Your task to perform on an android device: Go to Android settings Image 0: 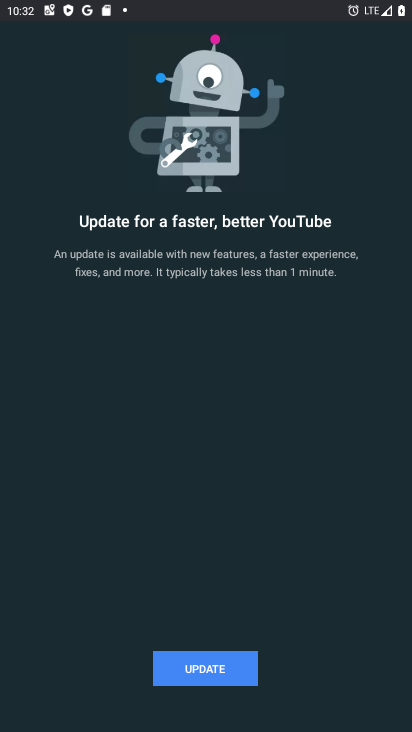
Step 0: press home button
Your task to perform on an android device: Go to Android settings Image 1: 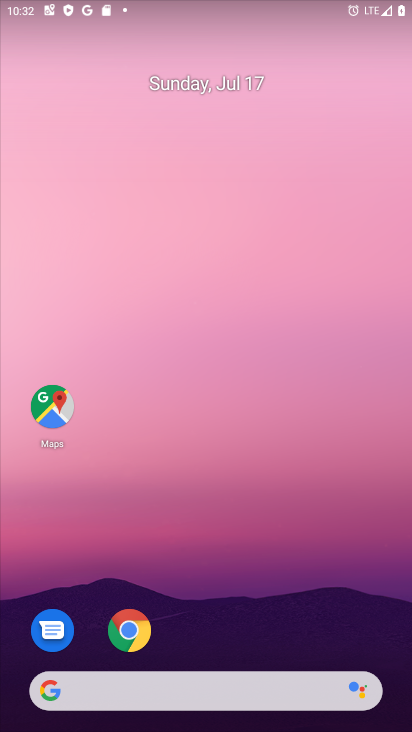
Step 1: drag from (202, 650) to (231, 65)
Your task to perform on an android device: Go to Android settings Image 2: 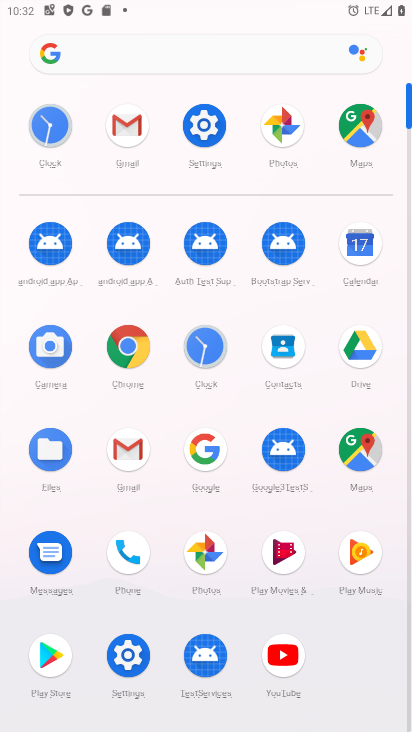
Step 2: click (204, 118)
Your task to perform on an android device: Go to Android settings Image 3: 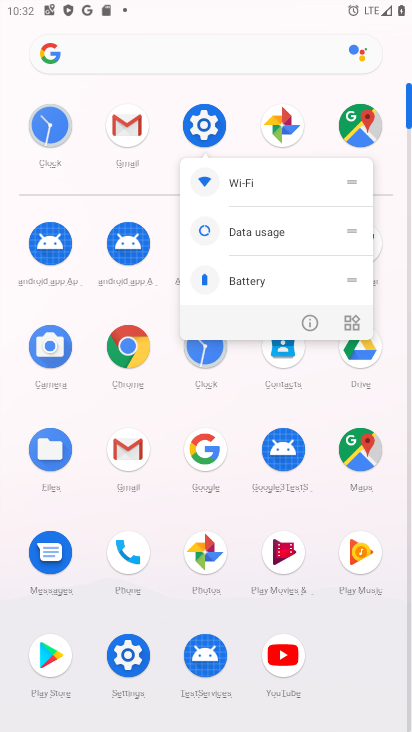
Step 3: click (201, 118)
Your task to perform on an android device: Go to Android settings Image 4: 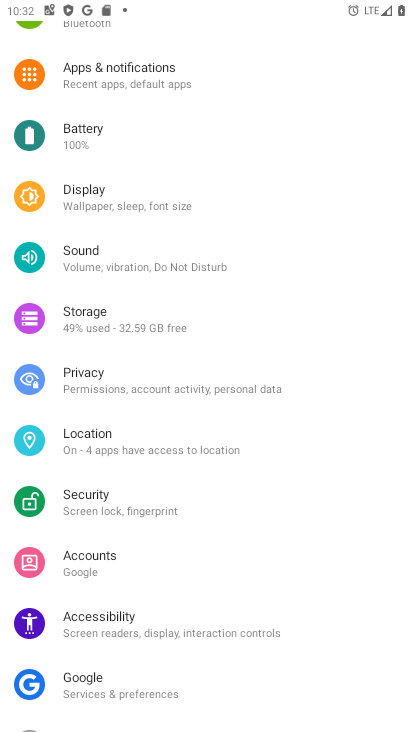
Step 4: drag from (210, 686) to (241, 90)
Your task to perform on an android device: Go to Android settings Image 5: 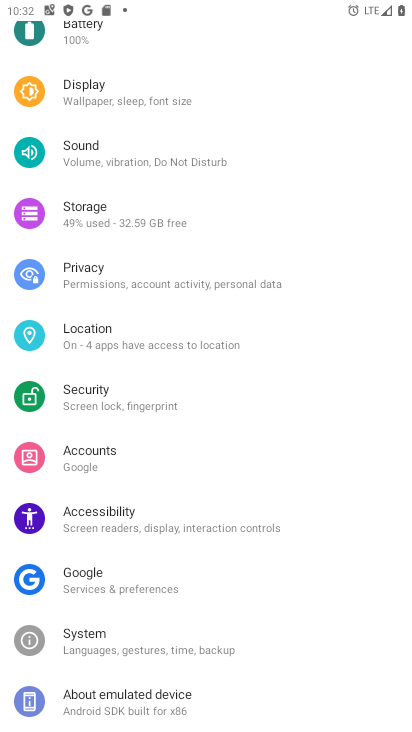
Step 5: click (200, 701)
Your task to perform on an android device: Go to Android settings Image 6: 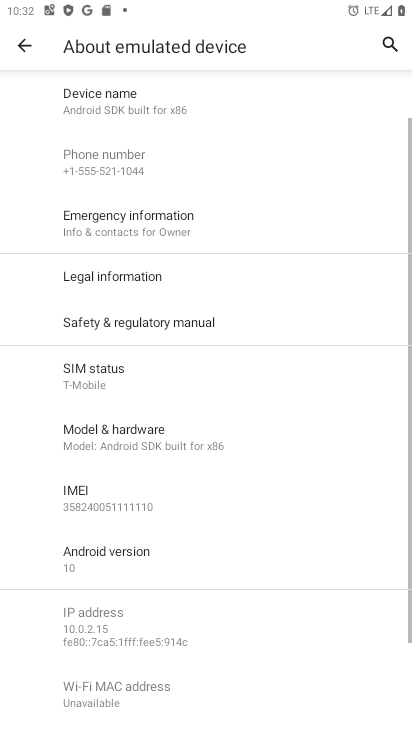
Step 6: click (114, 567)
Your task to perform on an android device: Go to Android settings Image 7: 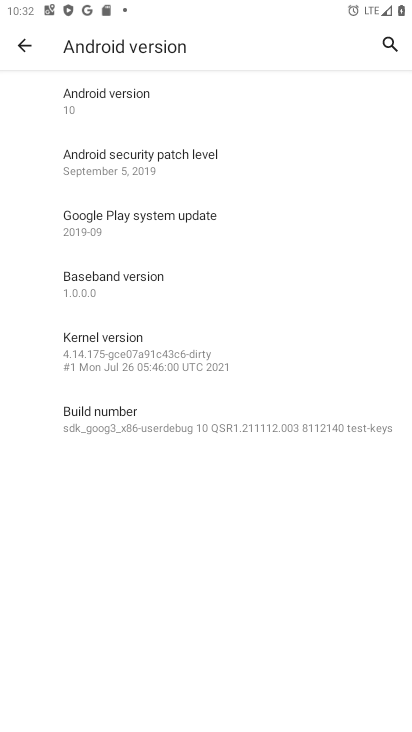
Step 7: task complete